Your task to perform on an android device: Go to settings Image 0: 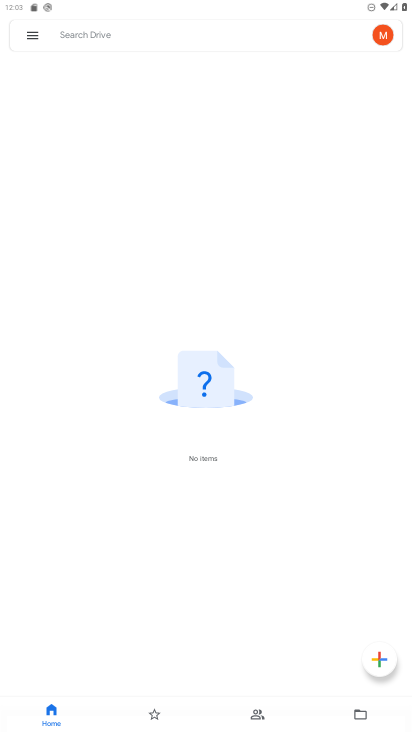
Step 0: press home button
Your task to perform on an android device: Go to settings Image 1: 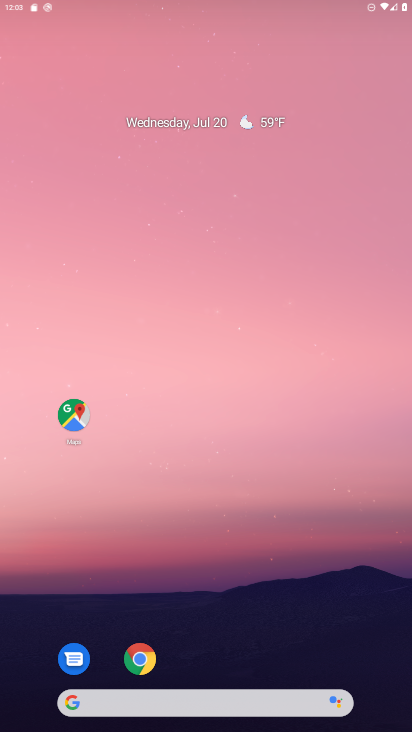
Step 1: drag from (202, 513) to (246, 128)
Your task to perform on an android device: Go to settings Image 2: 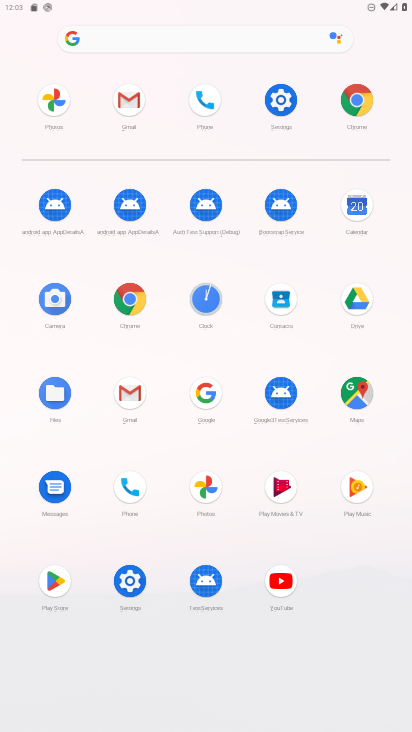
Step 2: click (275, 98)
Your task to perform on an android device: Go to settings Image 3: 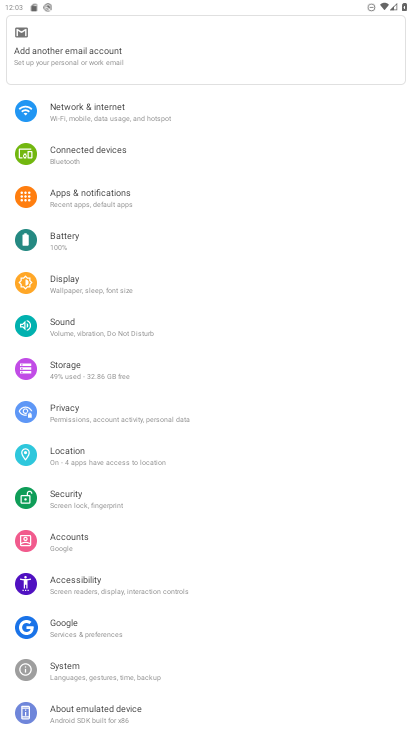
Step 3: task complete